Your task to perform on an android device: allow notifications from all sites in the chrome app Image 0: 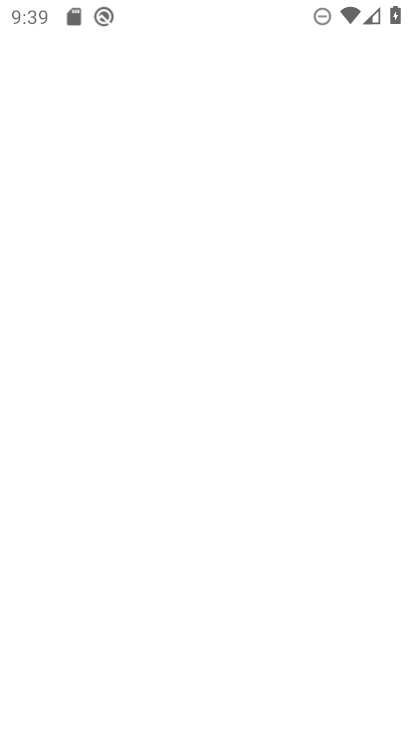
Step 0: drag from (355, 590) to (272, 160)
Your task to perform on an android device: allow notifications from all sites in the chrome app Image 1: 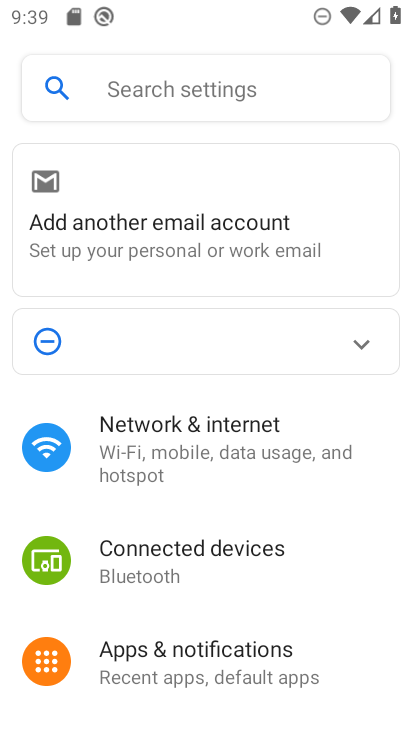
Step 1: press home button
Your task to perform on an android device: allow notifications from all sites in the chrome app Image 2: 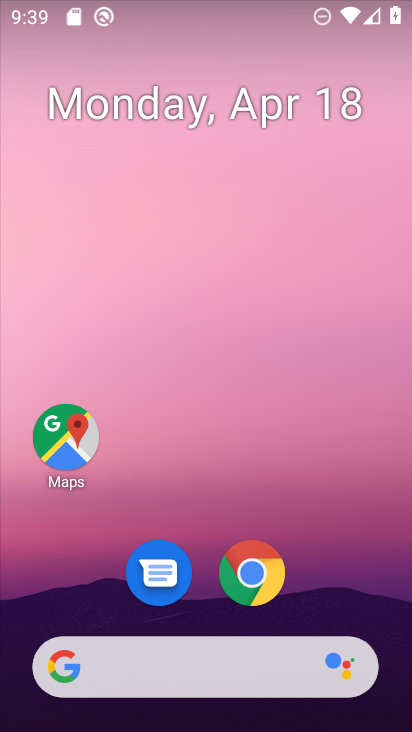
Step 2: drag from (355, 602) to (217, 24)
Your task to perform on an android device: allow notifications from all sites in the chrome app Image 3: 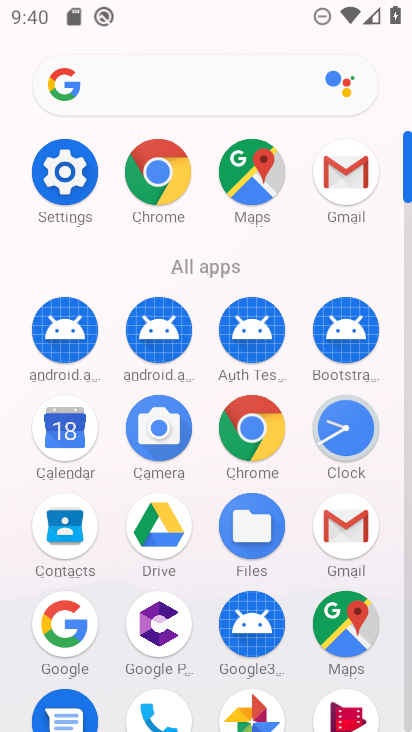
Step 3: click (244, 429)
Your task to perform on an android device: allow notifications from all sites in the chrome app Image 4: 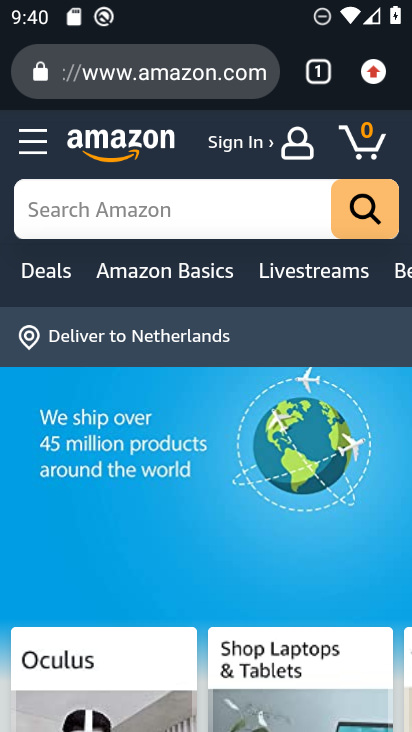
Step 4: click (376, 72)
Your task to perform on an android device: allow notifications from all sites in the chrome app Image 5: 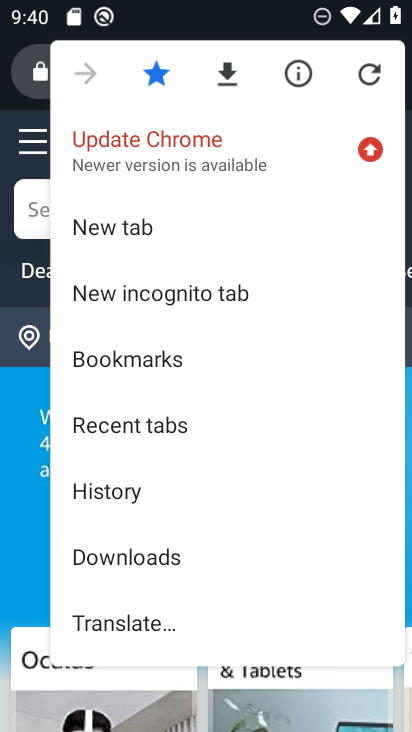
Step 5: drag from (180, 305) to (178, 263)
Your task to perform on an android device: allow notifications from all sites in the chrome app Image 6: 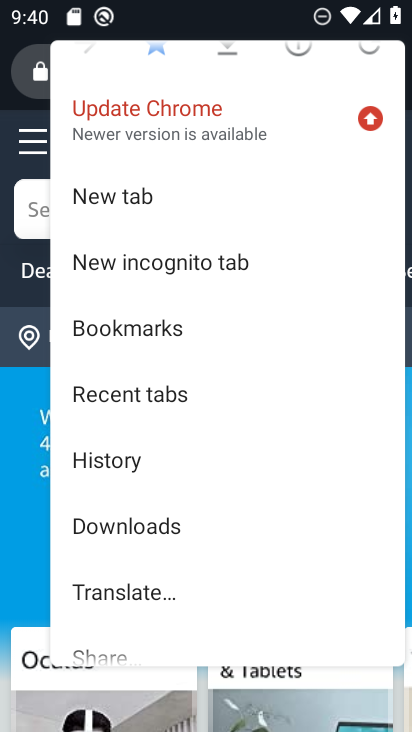
Step 6: drag from (200, 281) to (194, 247)
Your task to perform on an android device: allow notifications from all sites in the chrome app Image 7: 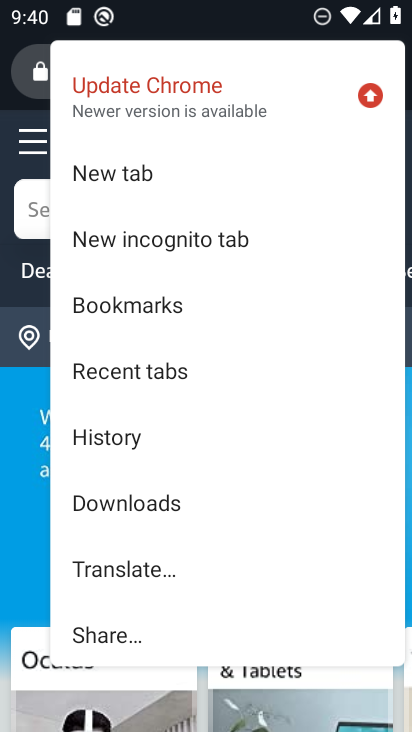
Step 7: drag from (157, 584) to (207, 151)
Your task to perform on an android device: allow notifications from all sites in the chrome app Image 8: 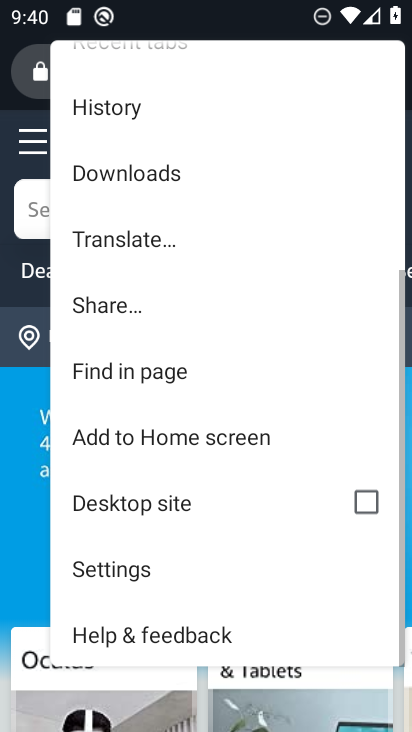
Step 8: click (163, 556)
Your task to perform on an android device: allow notifications from all sites in the chrome app Image 9: 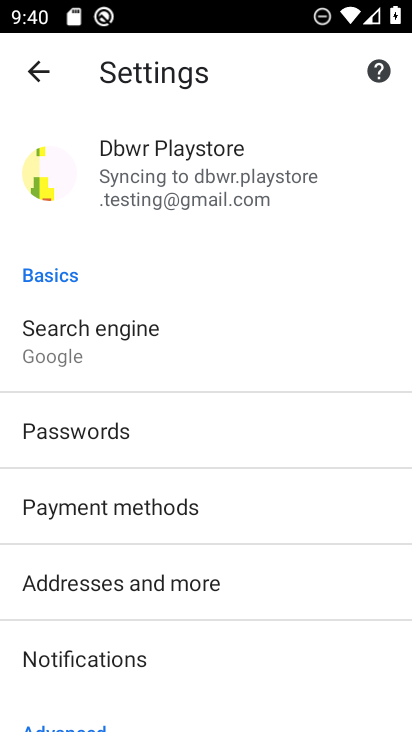
Step 9: drag from (163, 556) to (151, 107)
Your task to perform on an android device: allow notifications from all sites in the chrome app Image 10: 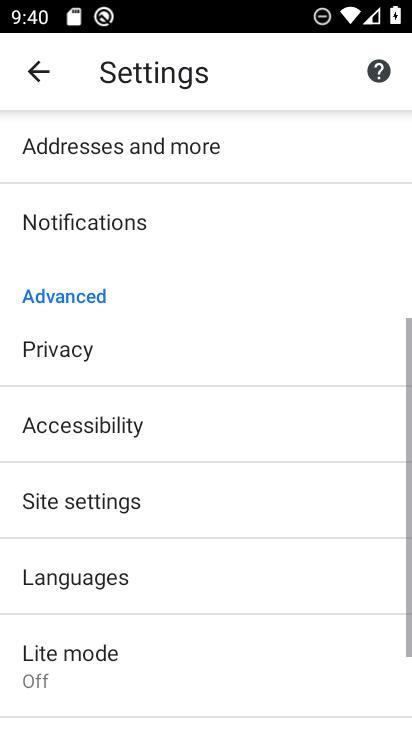
Step 10: click (183, 226)
Your task to perform on an android device: allow notifications from all sites in the chrome app Image 11: 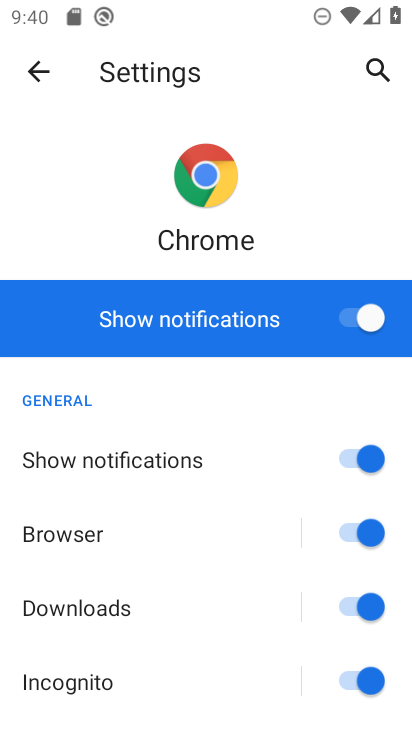
Step 11: task complete